Your task to perform on an android device: add a contact Image 0: 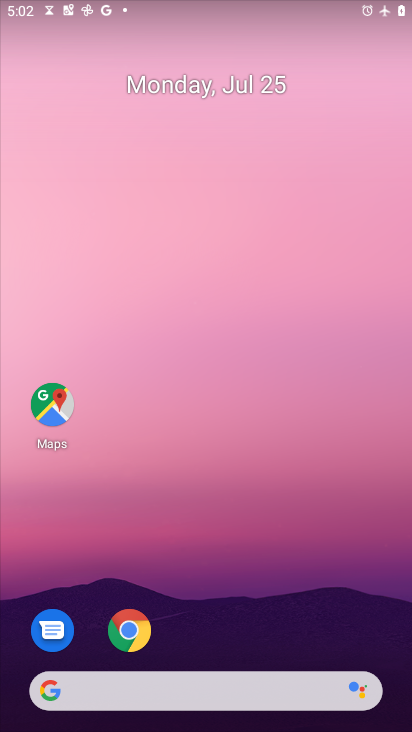
Step 0: drag from (213, 690) to (217, 42)
Your task to perform on an android device: add a contact Image 1: 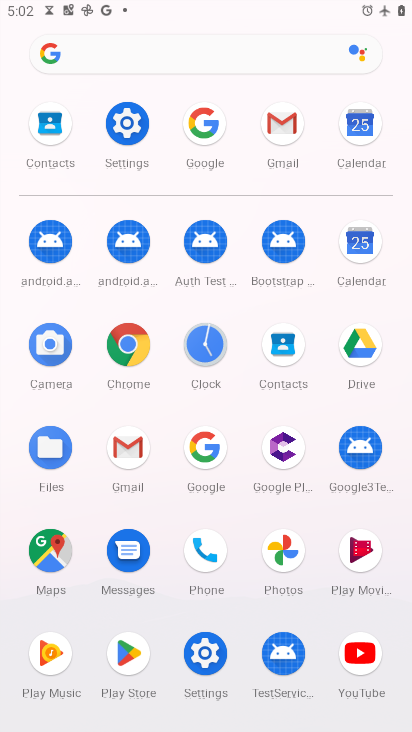
Step 1: click (283, 346)
Your task to perform on an android device: add a contact Image 2: 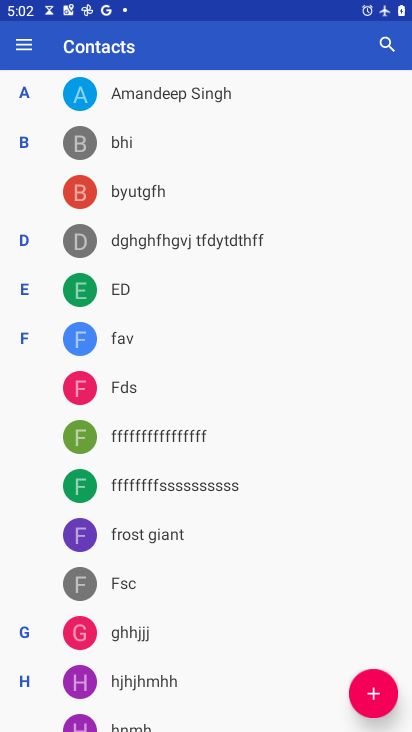
Step 2: click (371, 691)
Your task to perform on an android device: add a contact Image 3: 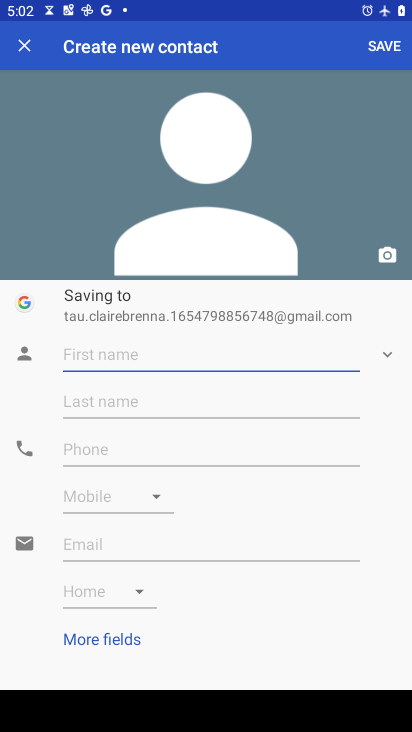
Step 3: click (161, 366)
Your task to perform on an android device: add a contact Image 4: 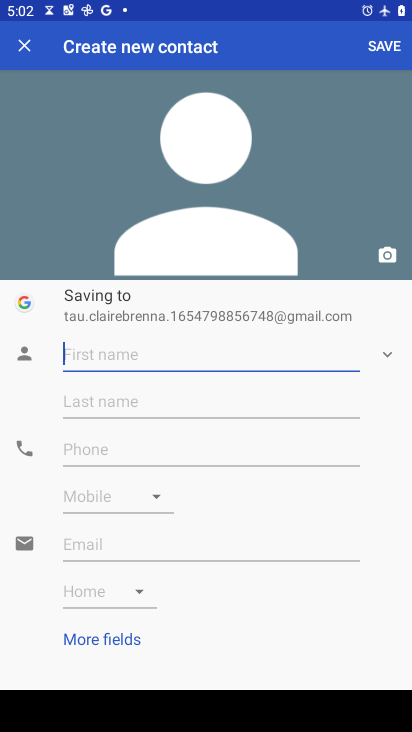
Step 4: click (168, 358)
Your task to perform on an android device: add a contact Image 5: 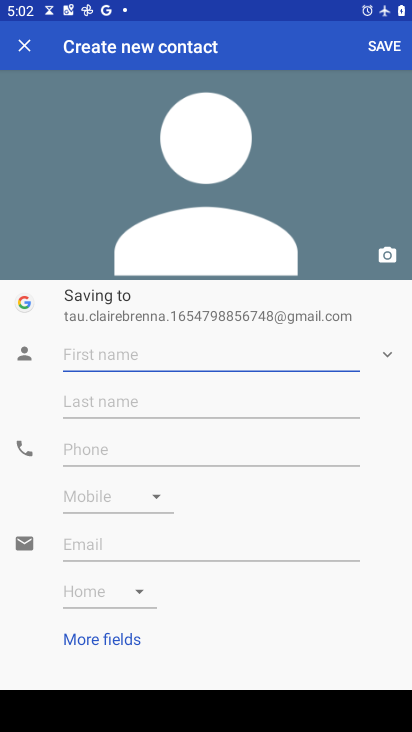
Step 5: click (195, 356)
Your task to perform on an android device: add a contact Image 6: 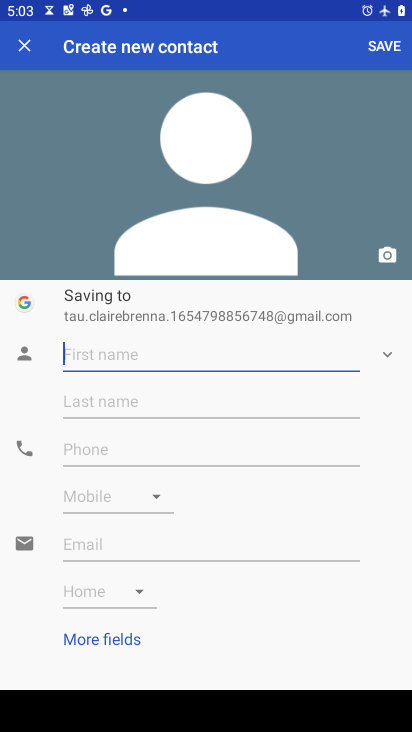
Step 6: type "Avishwati"
Your task to perform on an android device: add a contact Image 7: 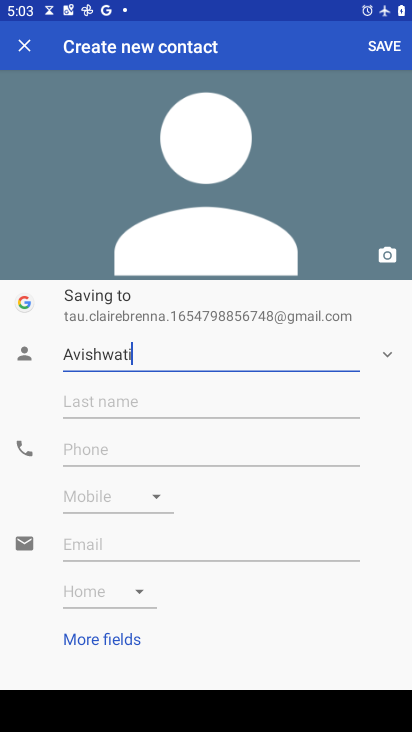
Step 7: click (178, 392)
Your task to perform on an android device: add a contact Image 8: 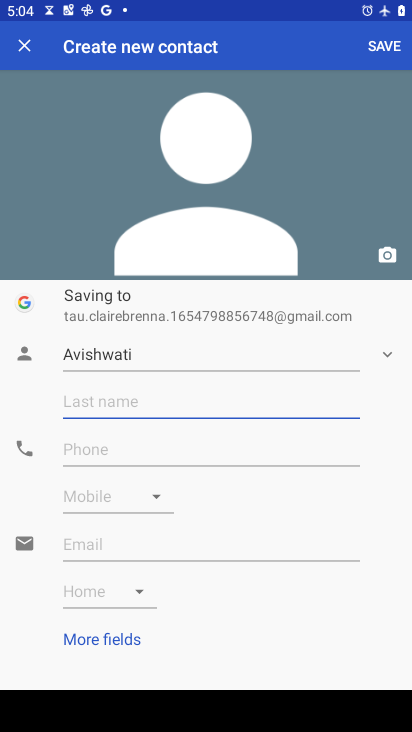
Step 8: type "Thakur"
Your task to perform on an android device: add a contact Image 9: 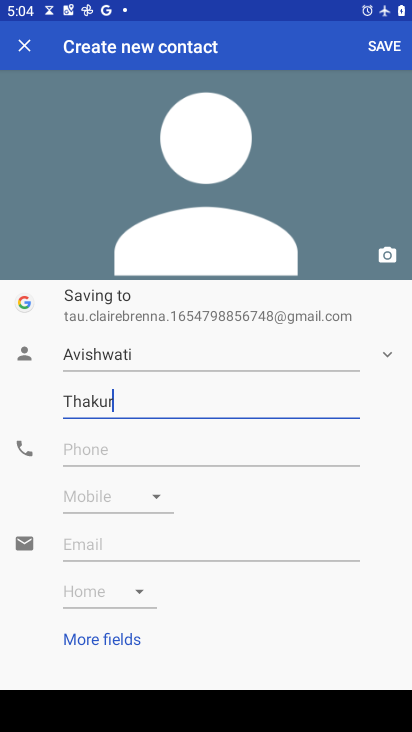
Step 9: click (197, 447)
Your task to perform on an android device: add a contact Image 10: 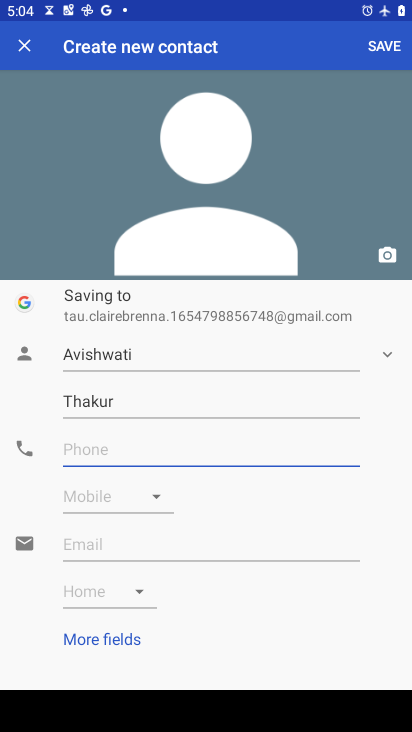
Step 10: type "0987654321"
Your task to perform on an android device: add a contact Image 11: 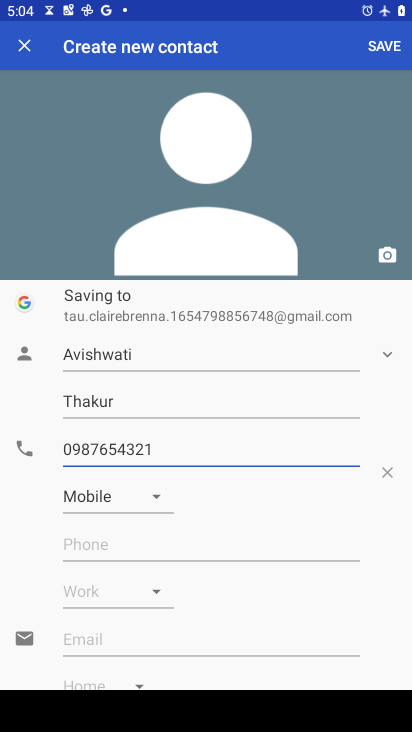
Step 11: click (382, 46)
Your task to perform on an android device: add a contact Image 12: 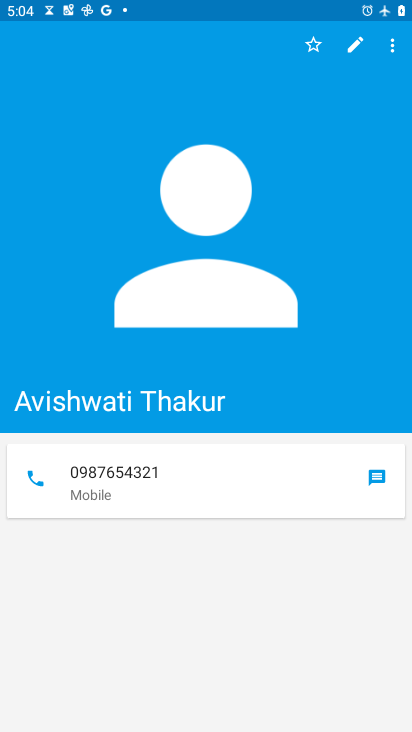
Step 12: task complete